Your task to perform on an android device: Open Google Chrome and click the shortcut for Amazon.com Image 0: 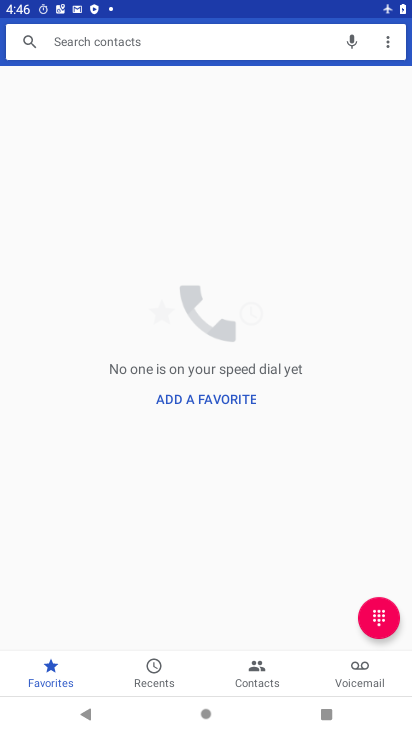
Step 0: press home button
Your task to perform on an android device: Open Google Chrome and click the shortcut for Amazon.com Image 1: 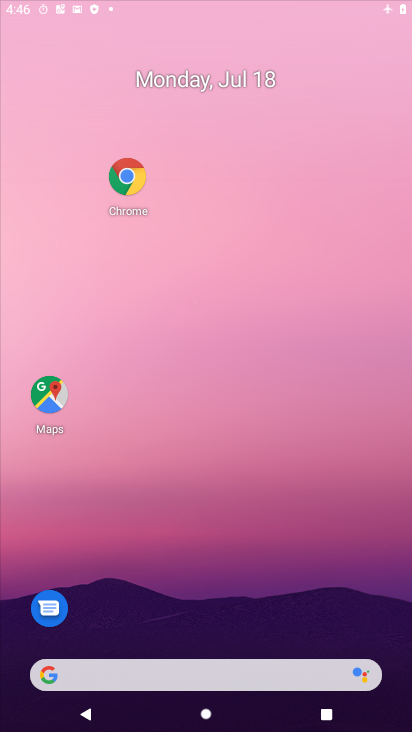
Step 1: drag from (219, 661) to (291, 51)
Your task to perform on an android device: Open Google Chrome and click the shortcut for Amazon.com Image 2: 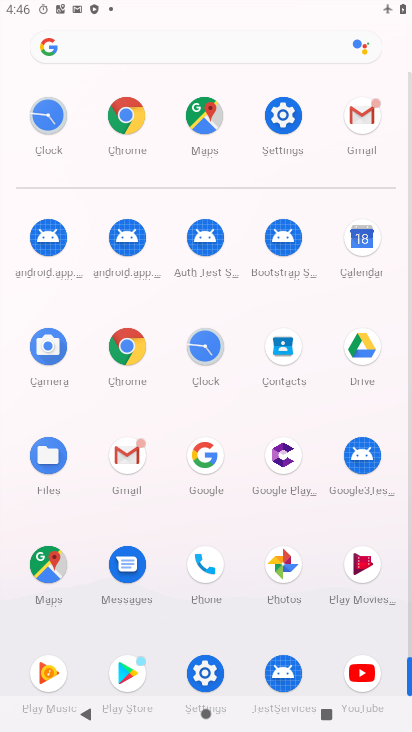
Step 2: drag from (217, 482) to (252, 221)
Your task to perform on an android device: Open Google Chrome and click the shortcut for Amazon.com Image 3: 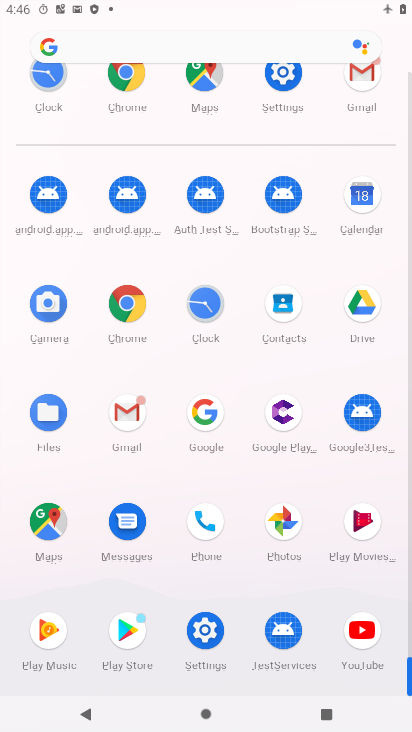
Step 3: click (130, 332)
Your task to perform on an android device: Open Google Chrome and click the shortcut for Amazon.com Image 4: 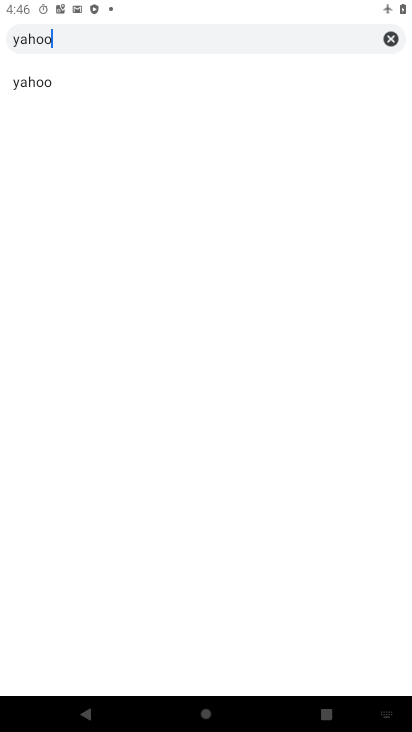
Step 4: click (381, 39)
Your task to perform on an android device: Open Google Chrome and click the shortcut for Amazon.com Image 5: 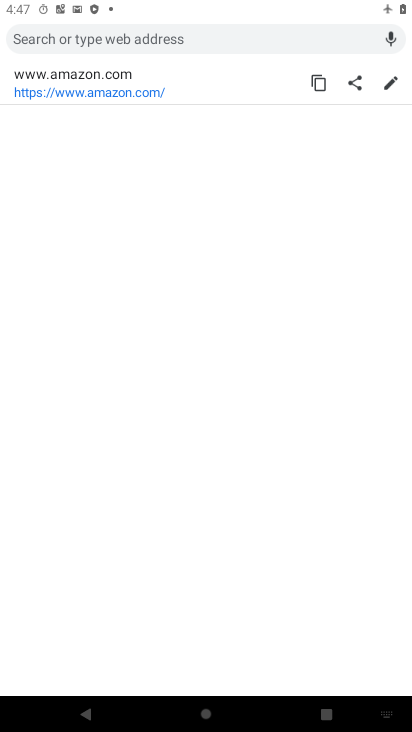
Step 5: press back button
Your task to perform on an android device: Open Google Chrome and click the shortcut for Amazon.com Image 6: 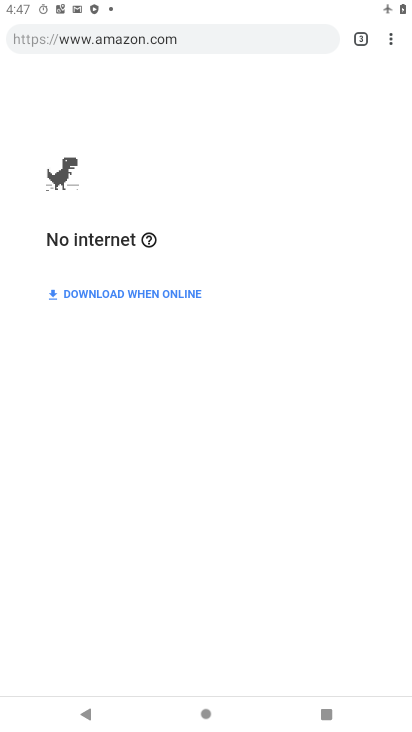
Step 6: drag from (359, 40) to (334, 192)
Your task to perform on an android device: Open Google Chrome and click the shortcut for Amazon.com Image 7: 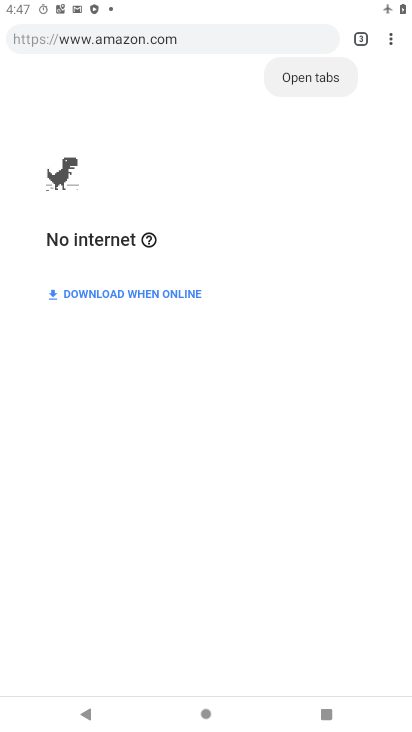
Step 7: drag from (354, 43) to (347, 236)
Your task to perform on an android device: Open Google Chrome and click the shortcut for Amazon.com Image 8: 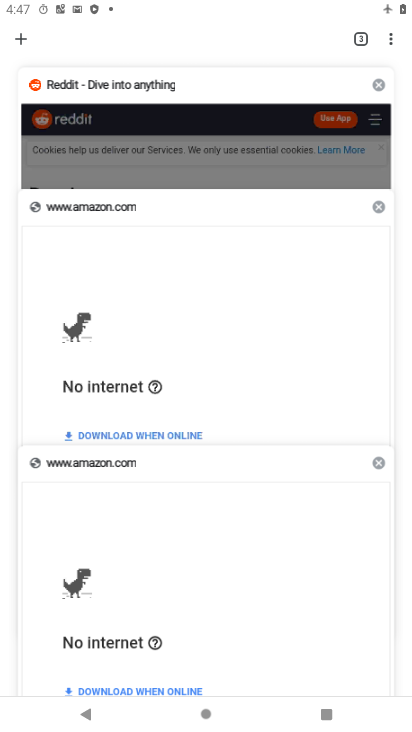
Step 8: click (16, 35)
Your task to perform on an android device: Open Google Chrome and click the shortcut for Amazon.com Image 9: 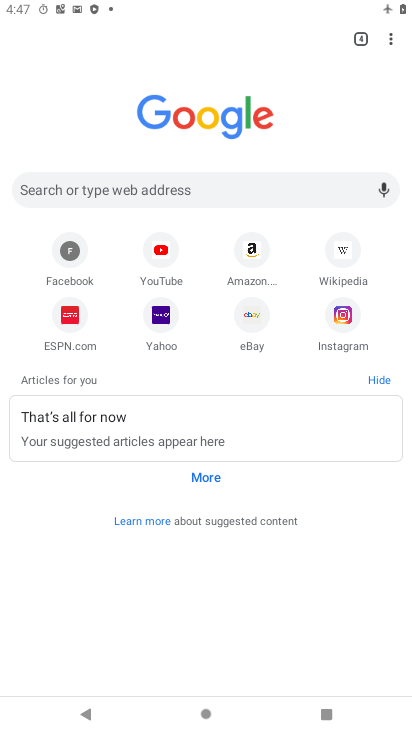
Step 9: click (251, 266)
Your task to perform on an android device: Open Google Chrome and click the shortcut for Amazon.com Image 10: 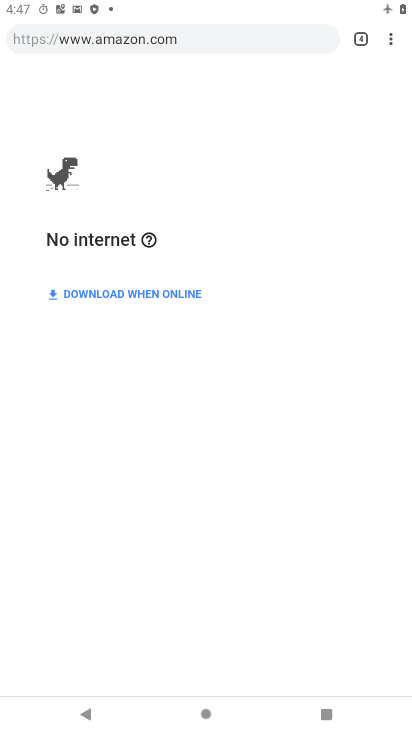
Step 10: task complete